Your task to perform on an android device: remove spam from my inbox in the gmail app Image 0: 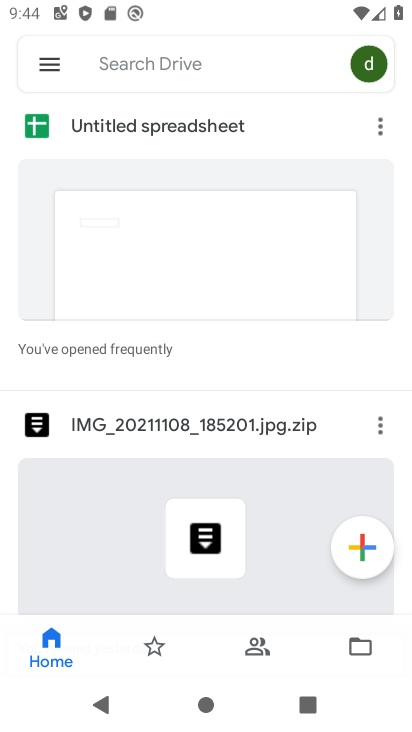
Step 0: press home button
Your task to perform on an android device: remove spam from my inbox in the gmail app Image 1: 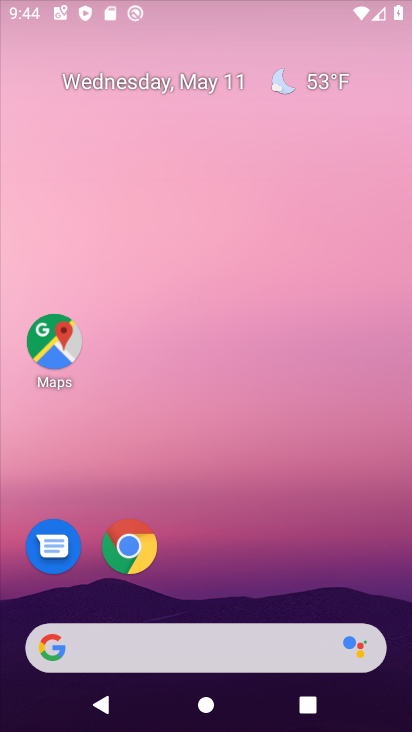
Step 1: drag from (398, 635) to (265, 106)
Your task to perform on an android device: remove spam from my inbox in the gmail app Image 2: 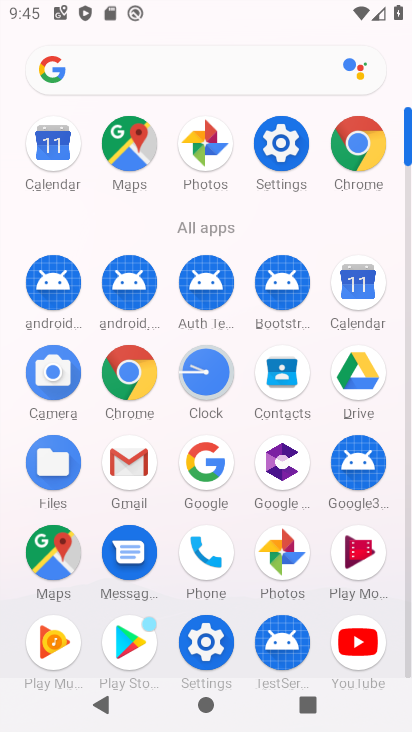
Step 2: click (144, 460)
Your task to perform on an android device: remove spam from my inbox in the gmail app Image 3: 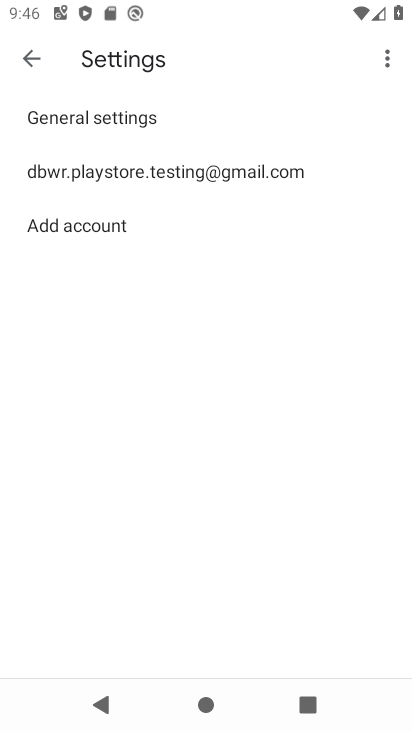
Step 3: click (213, 171)
Your task to perform on an android device: remove spam from my inbox in the gmail app Image 4: 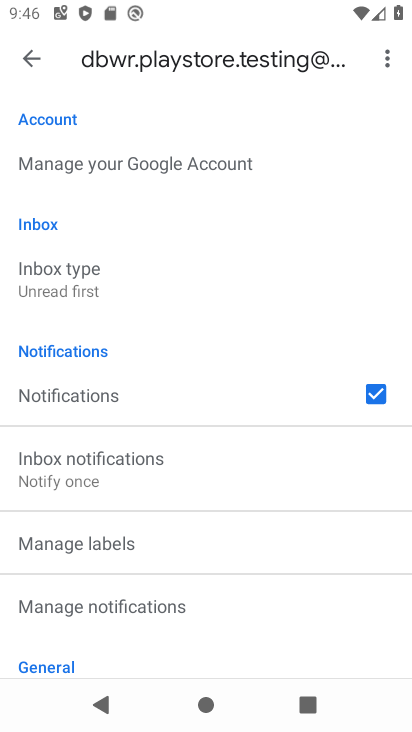
Step 4: press back button
Your task to perform on an android device: remove spam from my inbox in the gmail app Image 5: 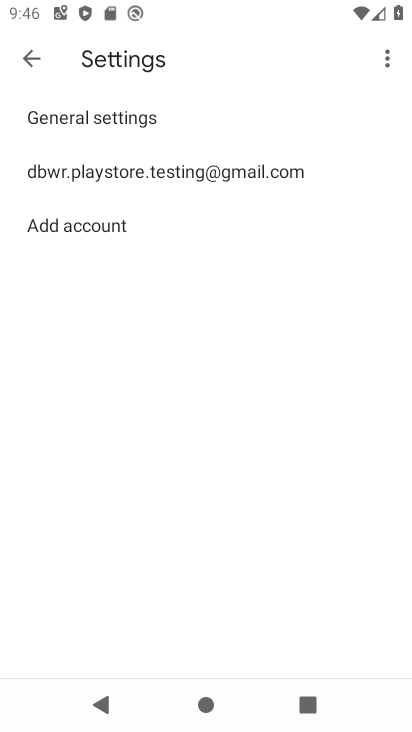
Step 5: press back button
Your task to perform on an android device: remove spam from my inbox in the gmail app Image 6: 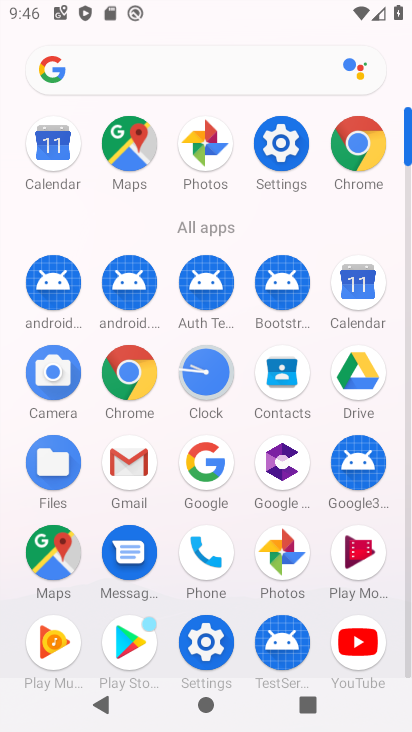
Step 6: click (118, 463)
Your task to perform on an android device: remove spam from my inbox in the gmail app Image 7: 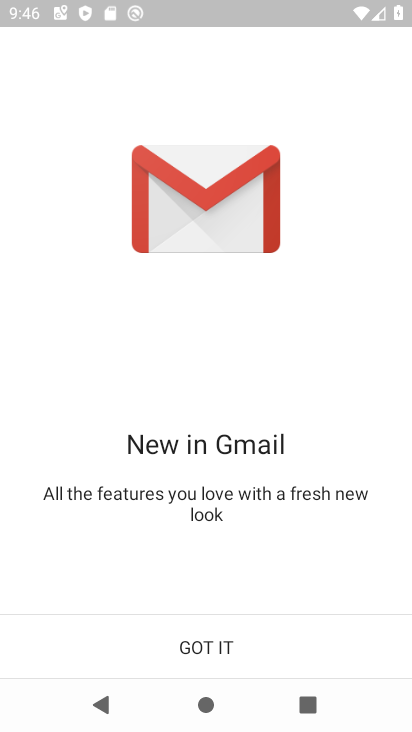
Step 7: click (155, 642)
Your task to perform on an android device: remove spam from my inbox in the gmail app Image 8: 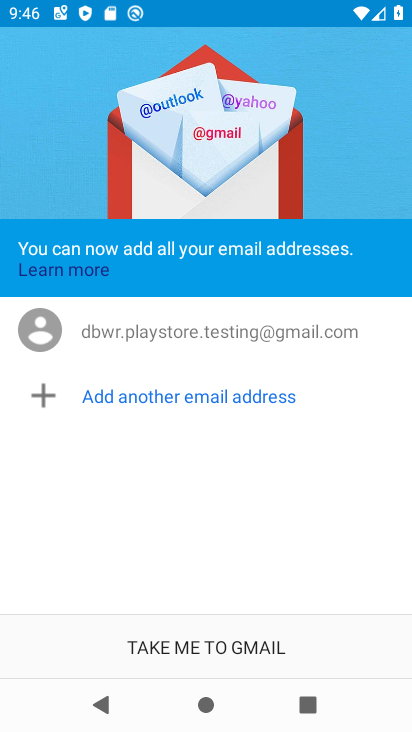
Step 8: click (153, 639)
Your task to perform on an android device: remove spam from my inbox in the gmail app Image 9: 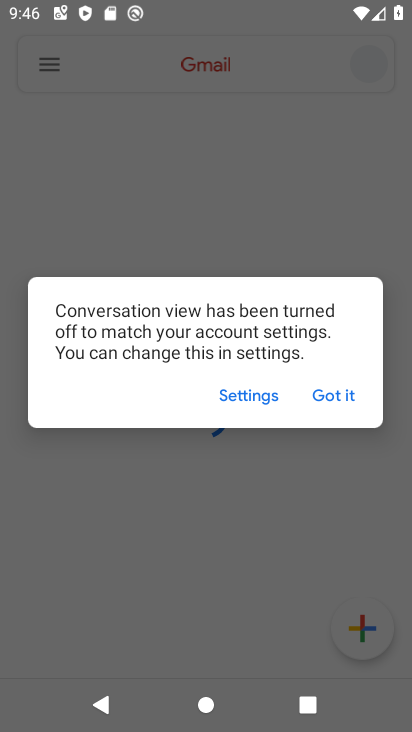
Step 9: click (338, 391)
Your task to perform on an android device: remove spam from my inbox in the gmail app Image 10: 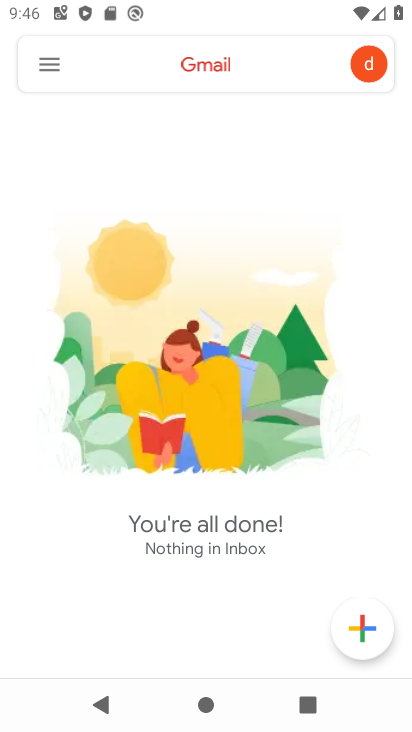
Step 10: click (49, 57)
Your task to perform on an android device: remove spam from my inbox in the gmail app Image 11: 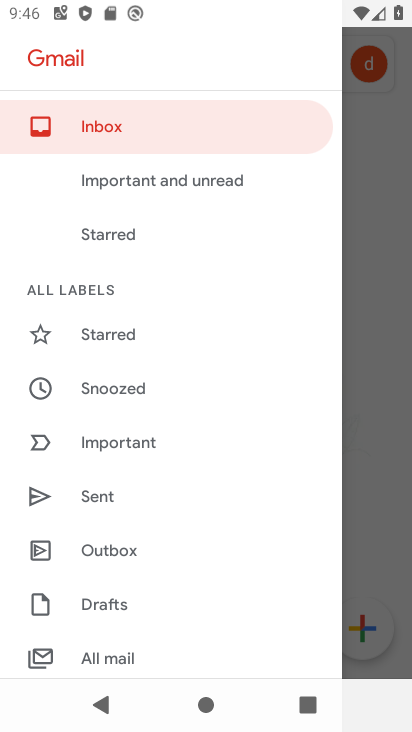
Step 11: drag from (127, 620) to (140, 191)
Your task to perform on an android device: remove spam from my inbox in the gmail app Image 12: 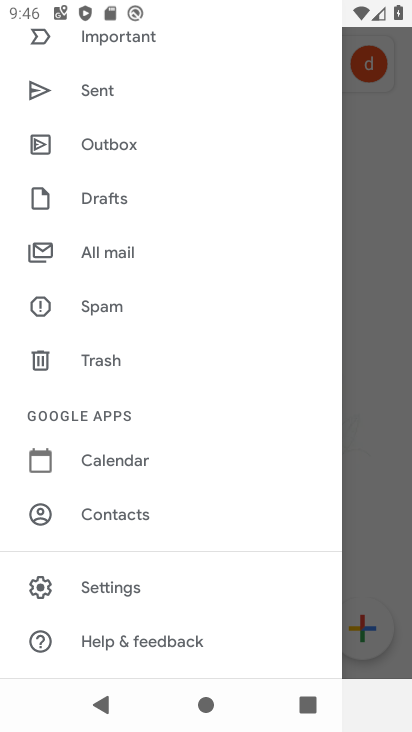
Step 12: click (113, 312)
Your task to perform on an android device: remove spam from my inbox in the gmail app Image 13: 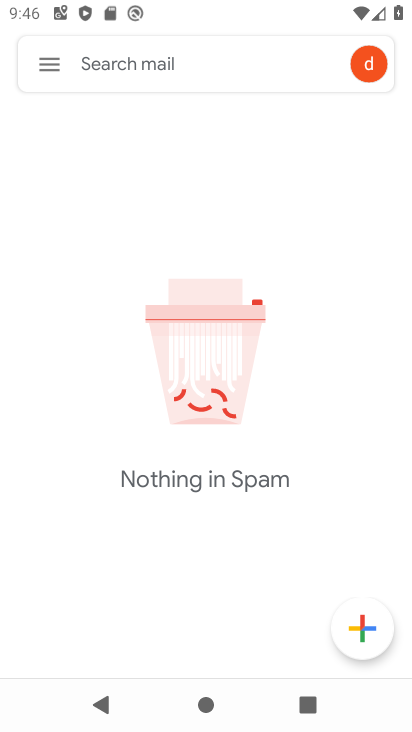
Step 13: task complete